Your task to perform on an android device: When is my next appointment? Image 0: 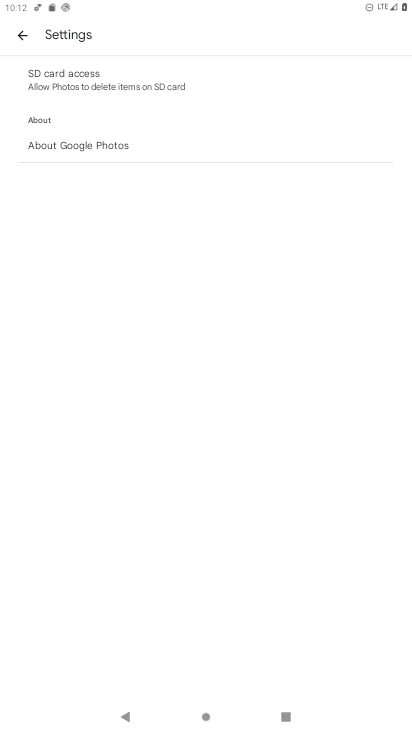
Step 0: press home button
Your task to perform on an android device: When is my next appointment? Image 1: 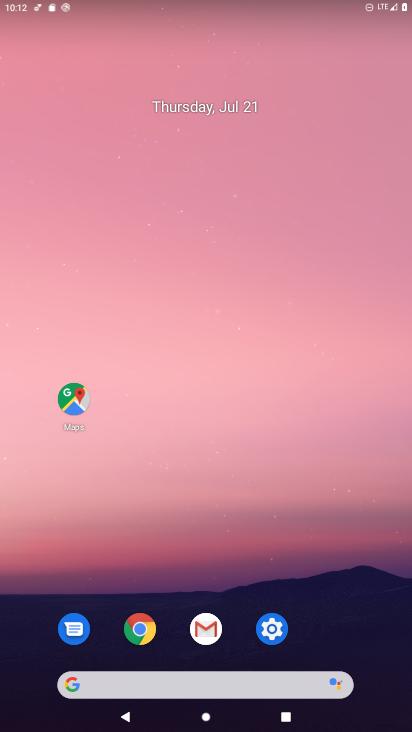
Step 1: drag from (272, 666) to (272, 119)
Your task to perform on an android device: When is my next appointment? Image 2: 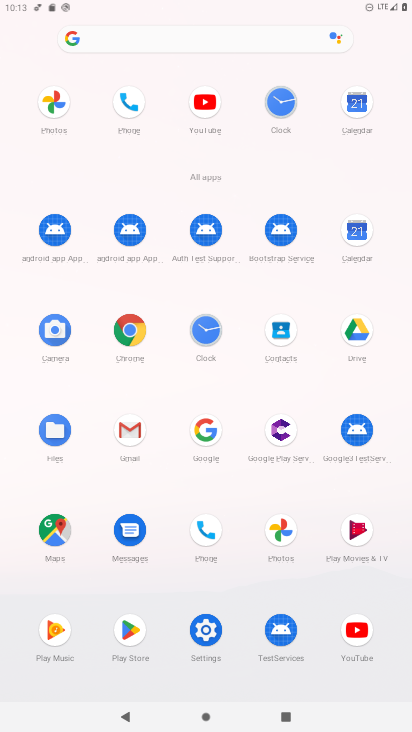
Step 2: click (340, 240)
Your task to perform on an android device: When is my next appointment? Image 3: 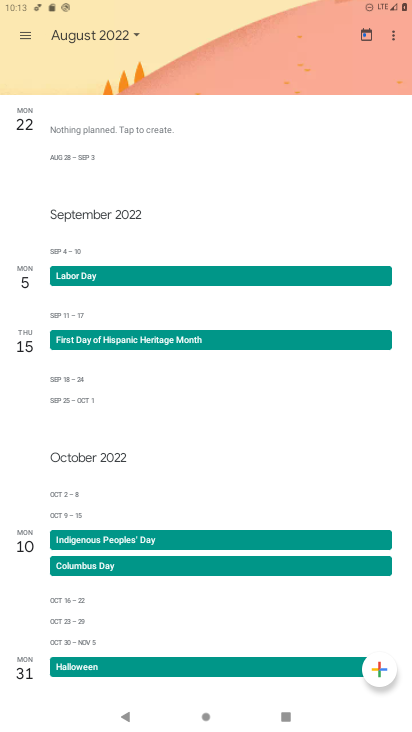
Step 3: click (17, 33)
Your task to perform on an android device: When is my next appointment? Image 4: 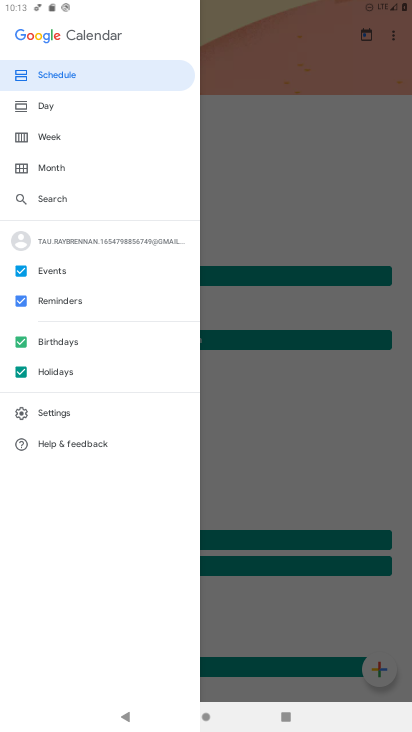
Step 4: click (54, 167)
Your task to perform on an android device: When is my next appointment? Image 5: 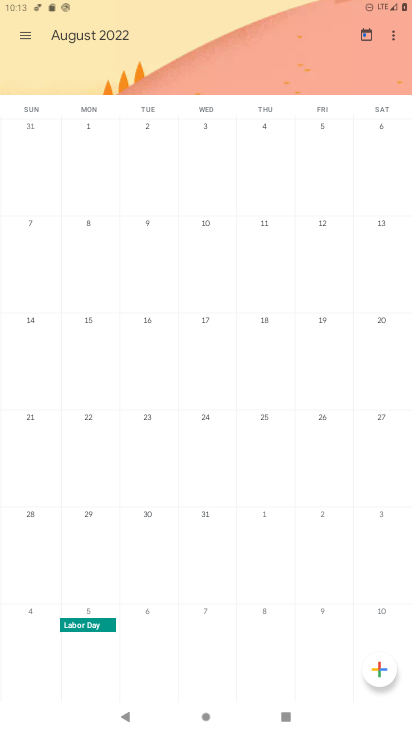
Step 5: drag from (64, 390) to (405, 324)
Your task to perform on an android device: When is my next appointment? Image 6: 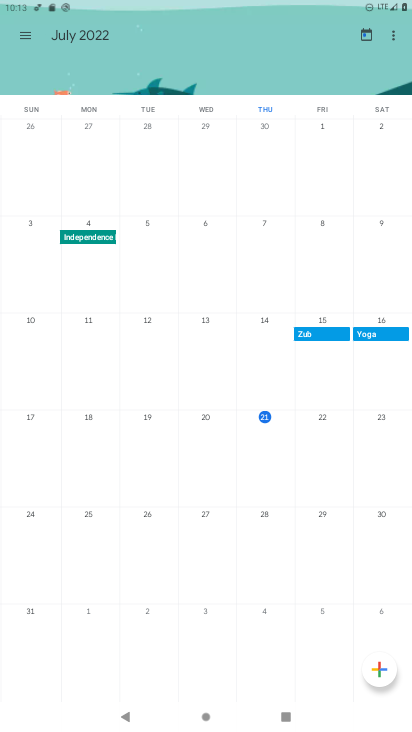
Step 6: click (267, 438)
Your task to perform on an android device: When is my next appointment? Image 7: 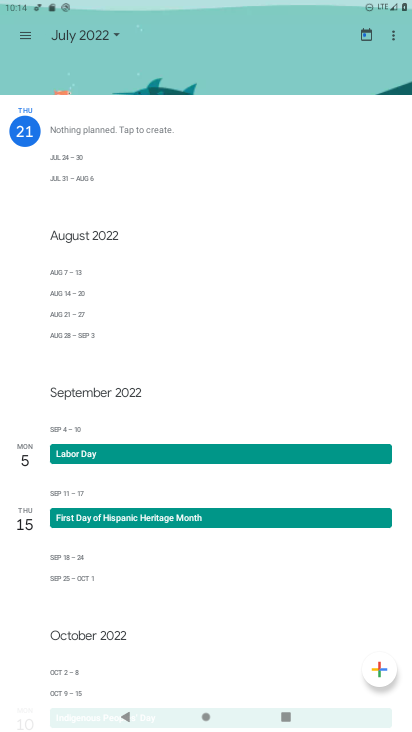
Step 7: task complete